Your task to perform on an android device: toggle javascript in the chrome app Image 0: 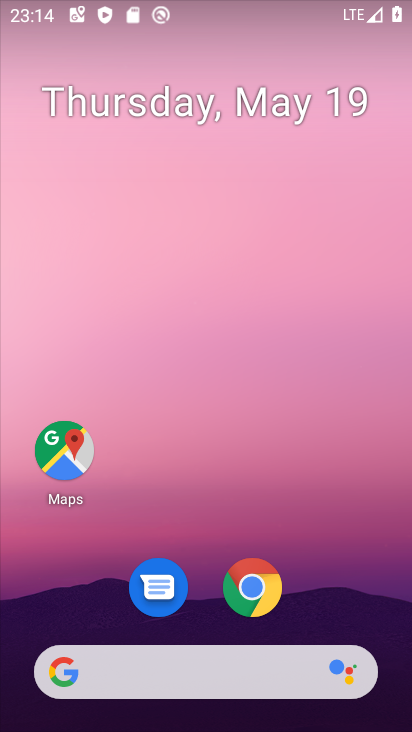
Step 0: drag from (276, 709) to (200, 212)
Your task to perform on an android device: toggle javascript in the chrome app Image 1: 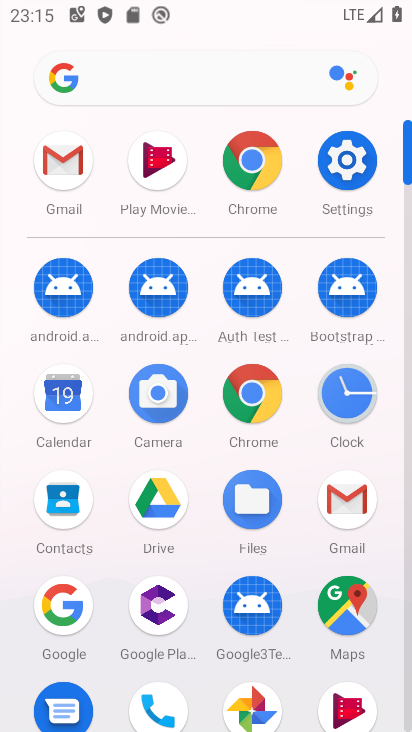
Step 1: click (261, 383)
Your task to perform on an android device: toggle javascript in the chrome app Image 2: 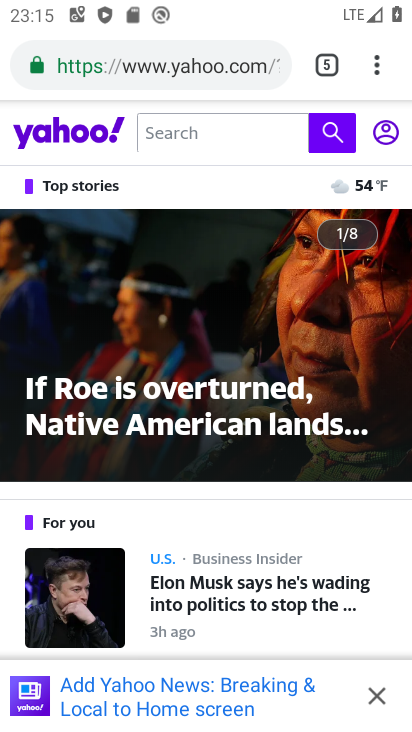
Step 2: click (370, 69)
Your task to perform on an android device: toggle javascript in the chrome app Image 3: 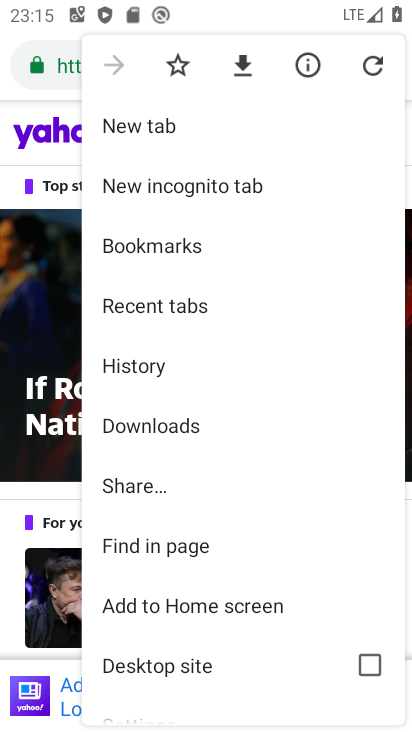
Step 3: drag from (181, 597) to (178, 489)
Your task to perform on an android device: toggle javascript in the chrome app Image 4: 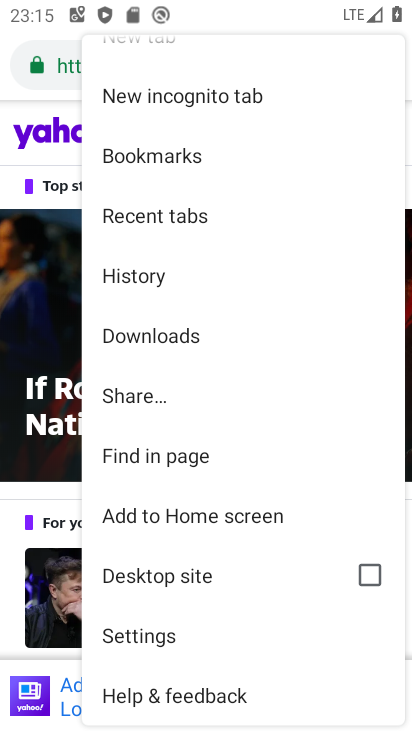
Step 4: click (167, 633)
Your task to perform on an android device: toggle javascript in the chrome app Image 5: 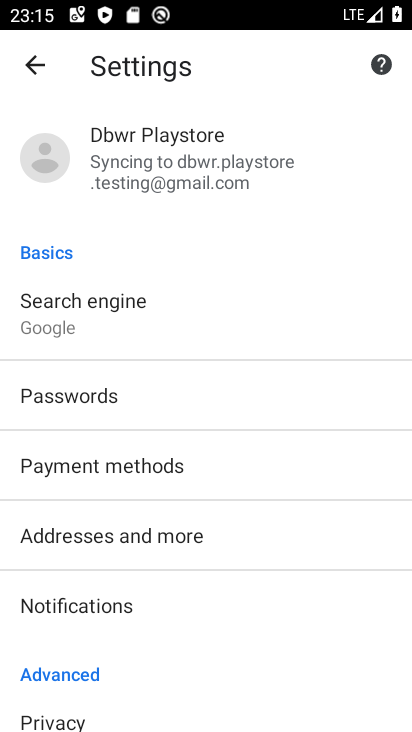
Step 5: drag from (176, 645) to (163, 430)
Your task to perform on an android device: toggle javascript in the chrome app Image 6: 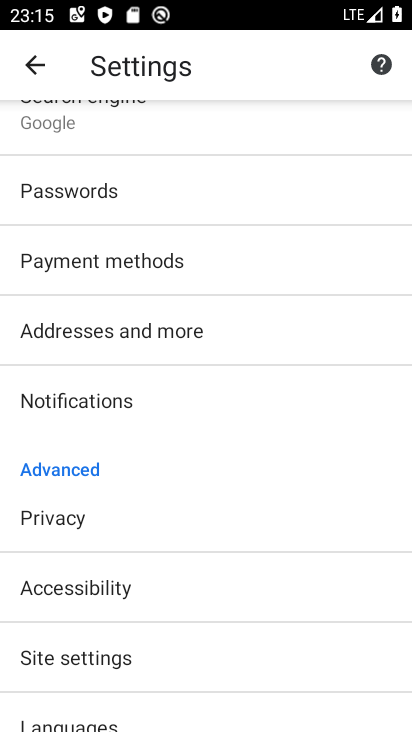
Step 6: drag from (195, 611) to (191, 474)
Your task to perform on an android device: toggle javascript in the chrome app Image 7: 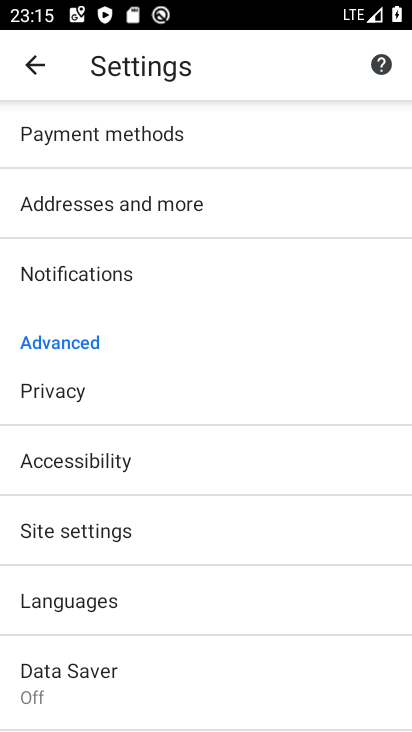
Step 7: click (129, 542)
Your task to perform on an android device: toggle javascript in the chrome app Image 8: 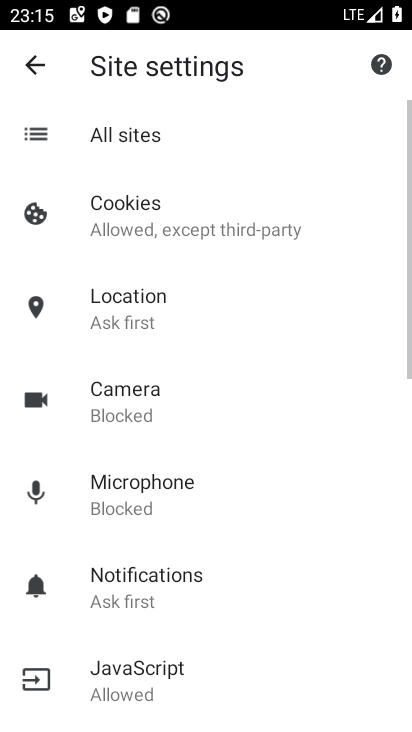
Step 8: click (163, 660)
Your task to perform on an android device: toggle javascript in the chrome app Image 9: 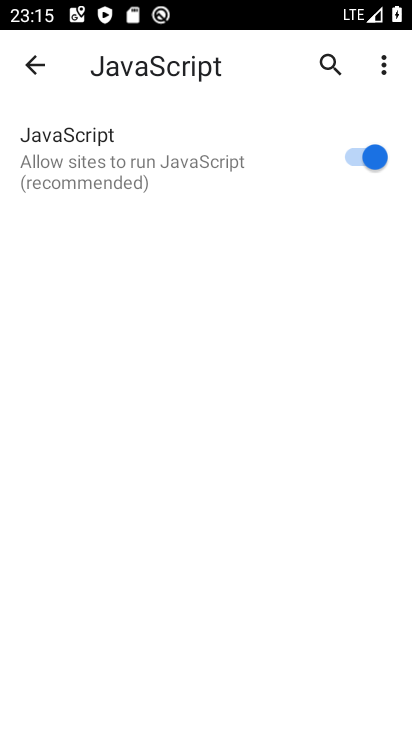
Step 9: task complete